Your task to perform on an android device: Open privacy settings Image 0: 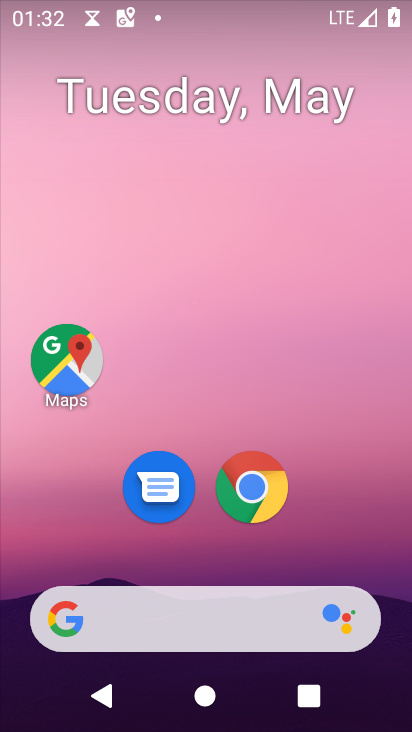
Step 0: drag from (296, 463) to (228, 15)
Your task to perform on an android device: Open privacy settings Image 1: 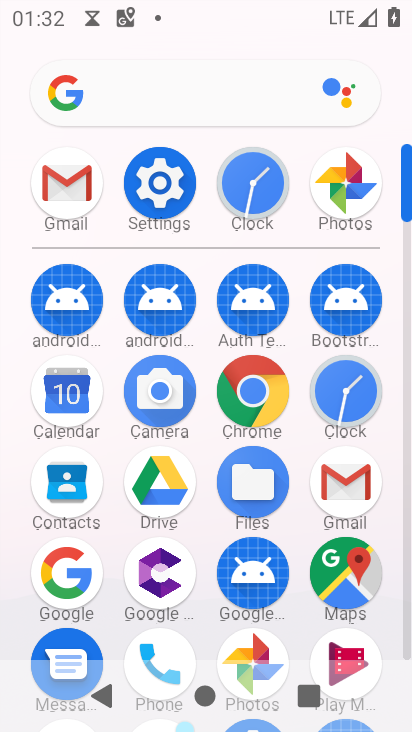
Step 1: click (153, 210)
Your task to perform on an android device: Open privacy settings Image 2: 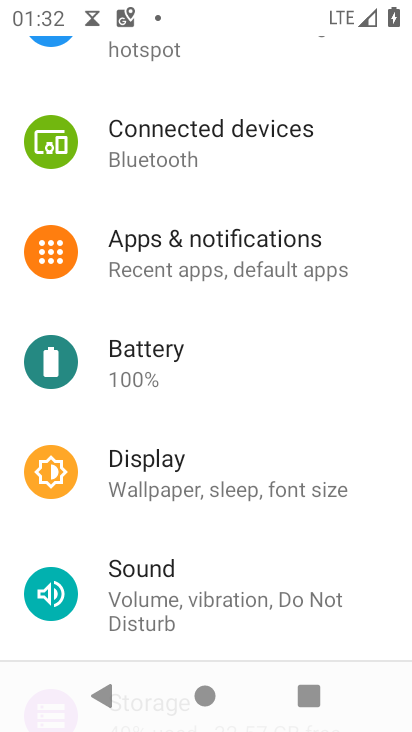
Step 2: drag from (183, 189) to (248, 523)
Your task to perform on an android device: Open privacy settings Image 3: 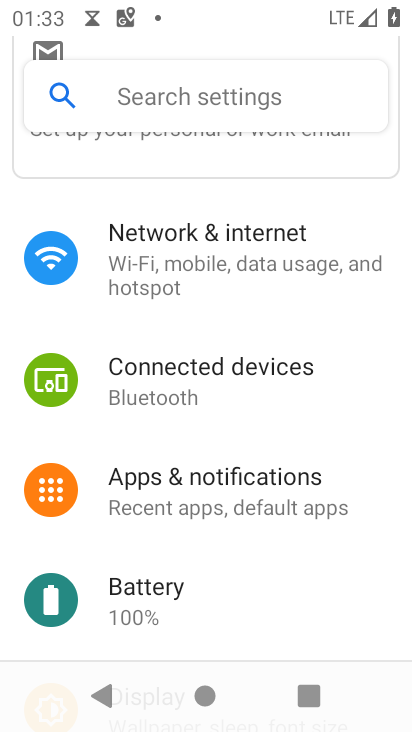
Step 3: drag from (190, 246) to (258, 624)
Your task to perform on an android device: Open privacy settings Image 4: 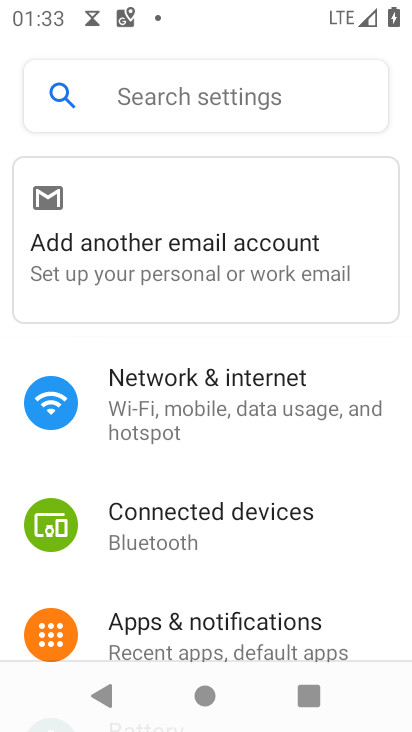
Step 4: drag from (264, 569) to (268, 296)
Your task to perform on an android device: Open privacy settings Image 5: 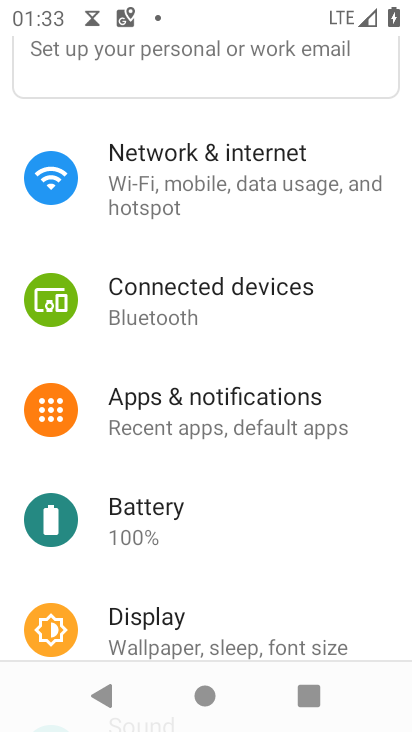
Step 5: drag from (243, 468) to (204, 155)
Your task to perform on an android device: Open privacy settings Image 6: 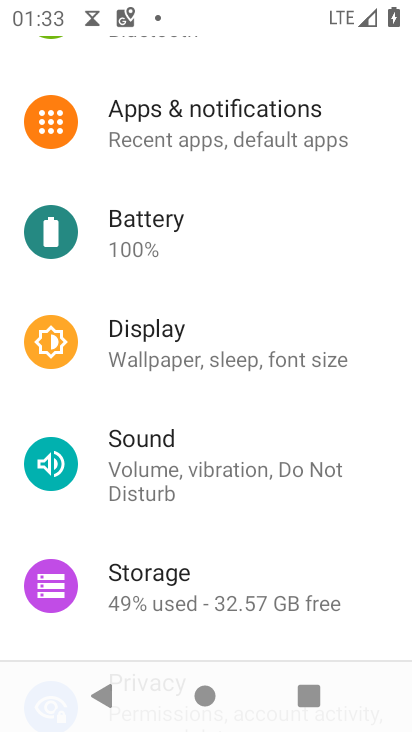
Step 6: drag from (176, 489) to (170, 105)
Your task to perform on an android device: Open privacy settings Image 7: 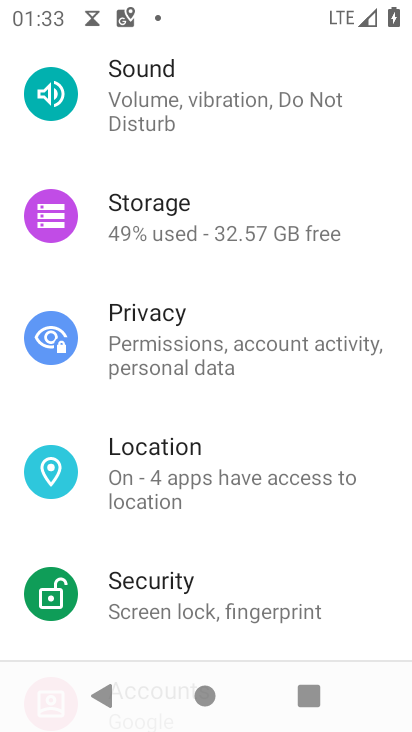
Step 7: click (164, 327)
Your task to perform on an android device: Open privacy settings Image 8: 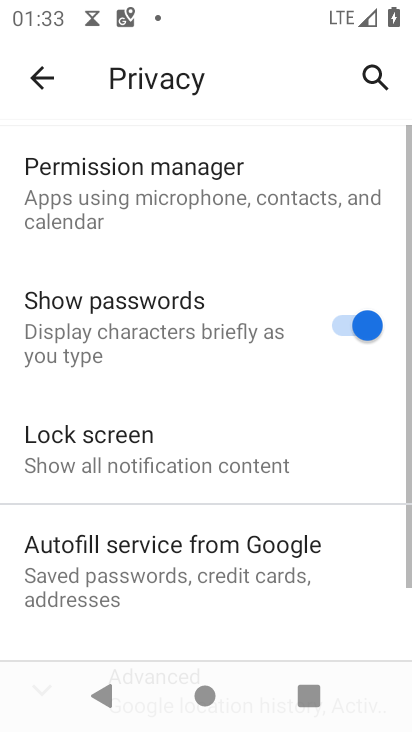
Step 8: task complete